Your task to perform on an android device: Open the stopwatch Image 0: 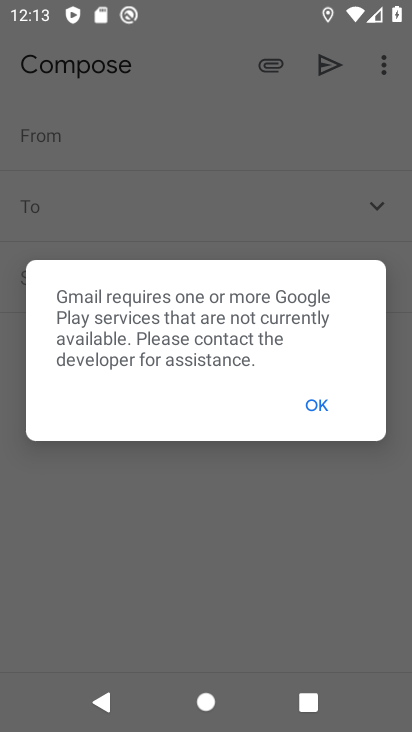
Step 0: press home button
Your task to perform on an android device: Open the stopwatch Image 1: 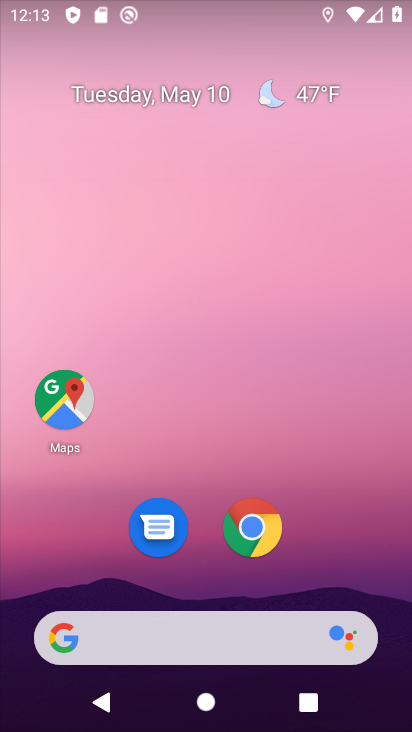
Step 1: drag from (388, 580) to (349, 157)
Your task to perform on an android device: Open the stopwatch Image 2: 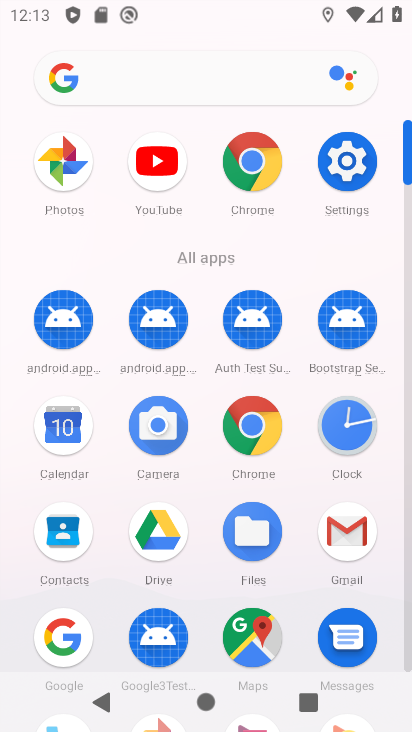
Step 2: click (344, 431)
Your task to perform on an android device: Open the stopwatch Image 3: 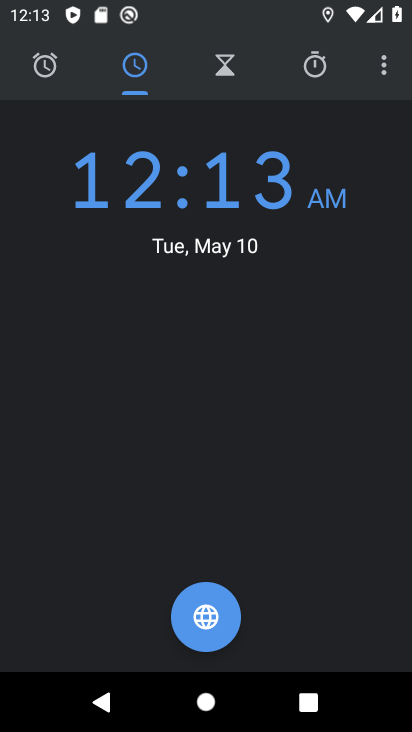
Step 3: click (319, 81)
Your task to perform on an android device: Open the stopwatch Image 4: 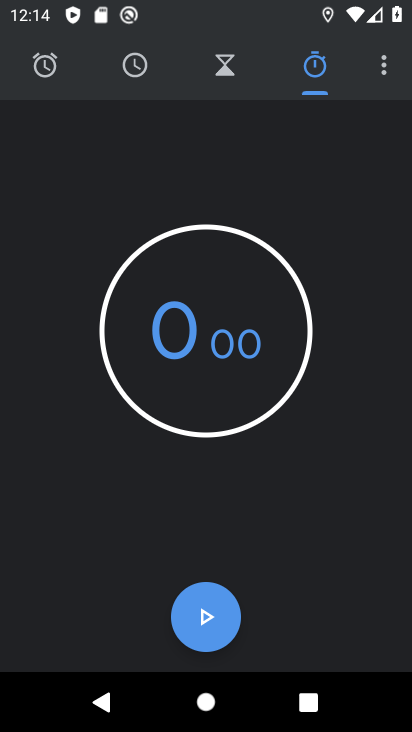
Step 4: click (189, 643)
Your task to perform on an android device: Open the stopwatch Image 5: 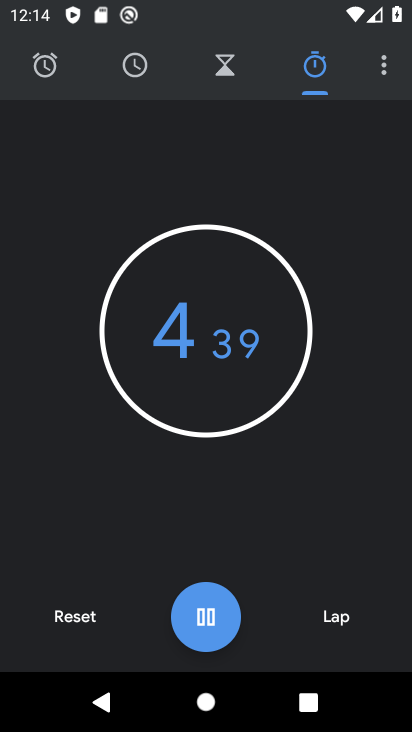
Step 5: click (194, 611)
Your task to perform on an android device: Open the stopwatch Image 6: 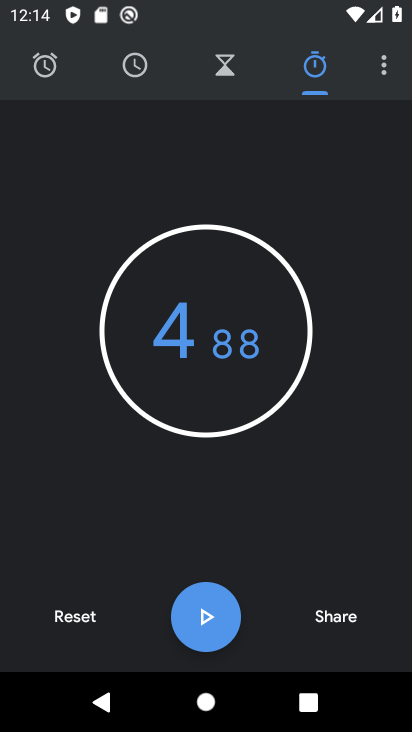
Step 6: task complete